Your task to perform on an android device: show emergency info Image 0: 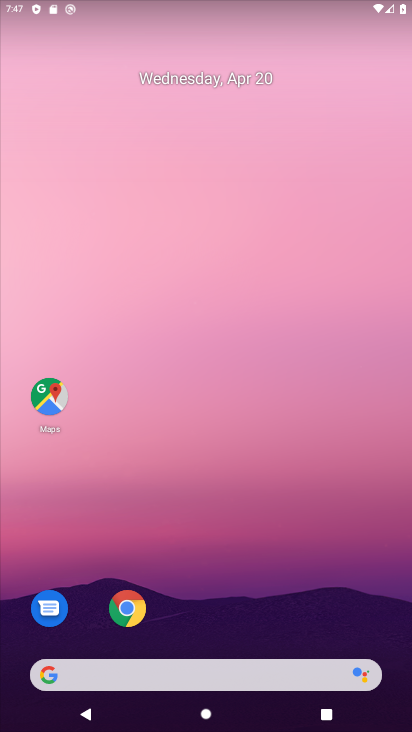
Step 0: drag from (252, 617) to (271, 145)
Your task to perform on an android device: show emergency info Image 1: 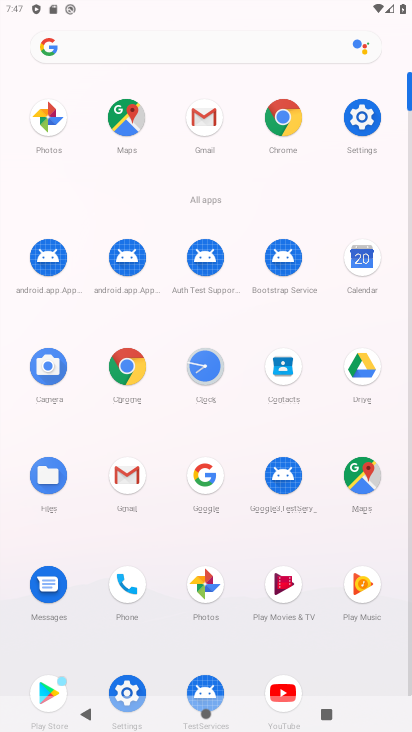
Step 1: click (361, 114)
Your task to perform on an android device: show emergency info Image 2: 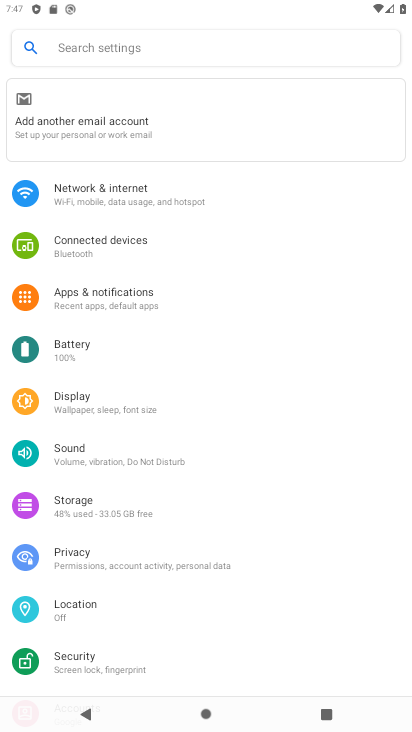
Step 2: drag from (135, 634) to (240, 210)
Your task to perform on an android device: show emergency info Image 3: 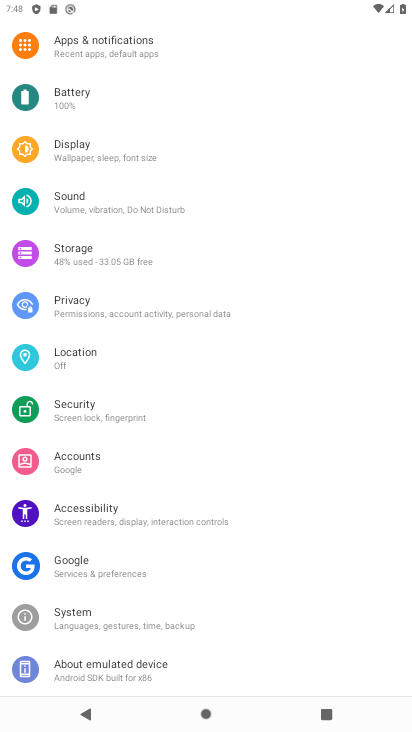
Step 3: drag from (164, 554) to (211, 382)
Your task to perform on an android device: show emergency info Image 4: 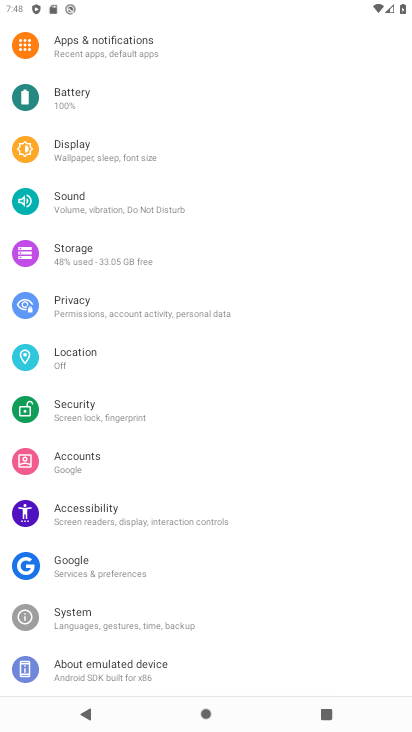
Step 4: click (145, 658)
Your task to perform on an android device: show emergency info Image 5: 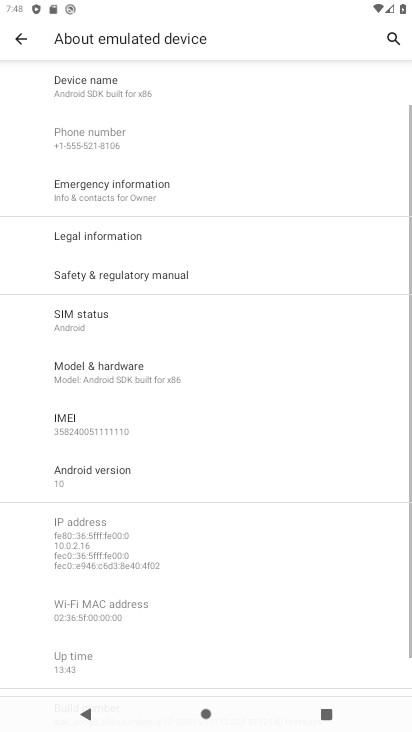
Step 5: click (174, 195)
Your task to perform on an android device: show emergency info Image 6: 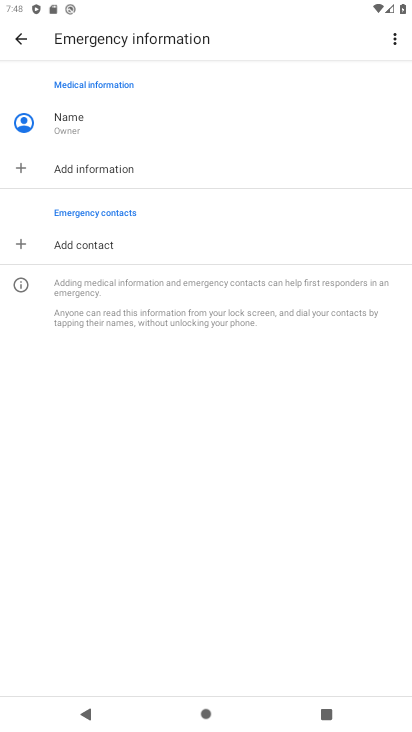
Step 6: task complete